Your task to perform on an android device: Check the weather Image 0: 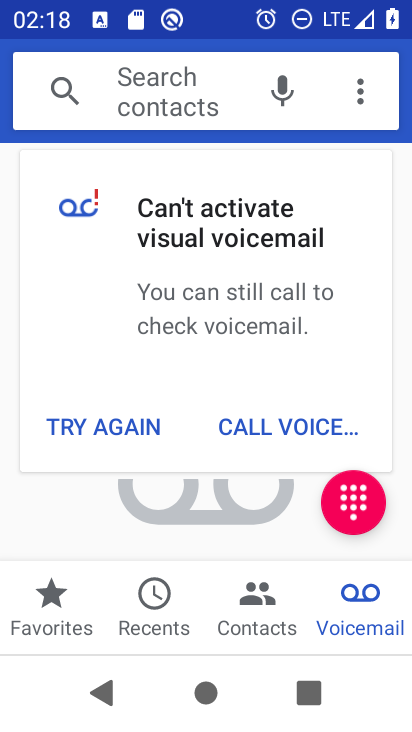
Step 0: press home button
Your task to perform on an android device: Check the weather Image 1: 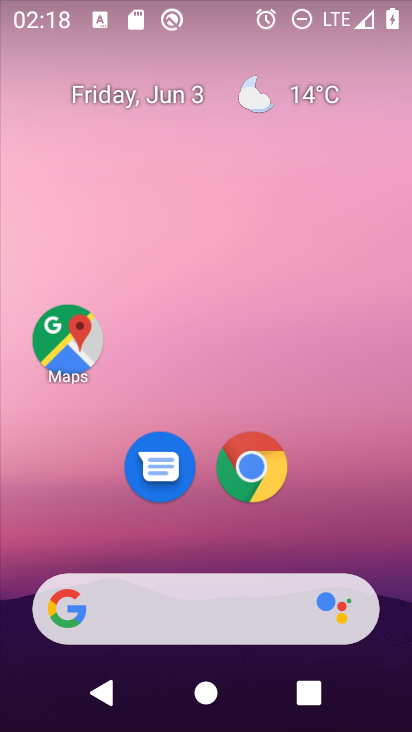
Step 1: click (311, 93)
Your task to perform on an android device: Check the weather Image 2: 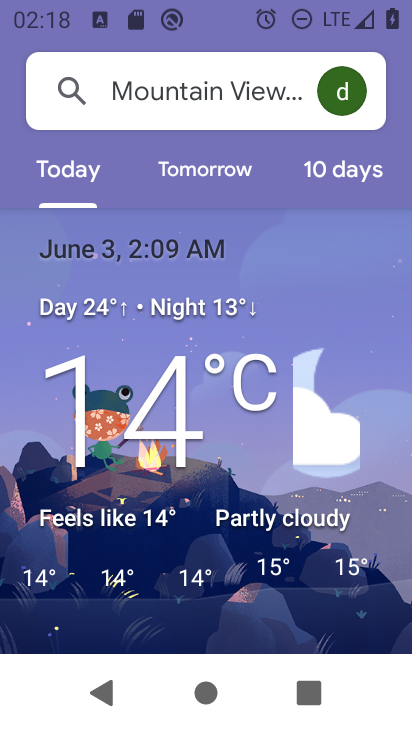
Step 2: task complete